Your task to perform on an android device: Is it going to rain today? Image 0: 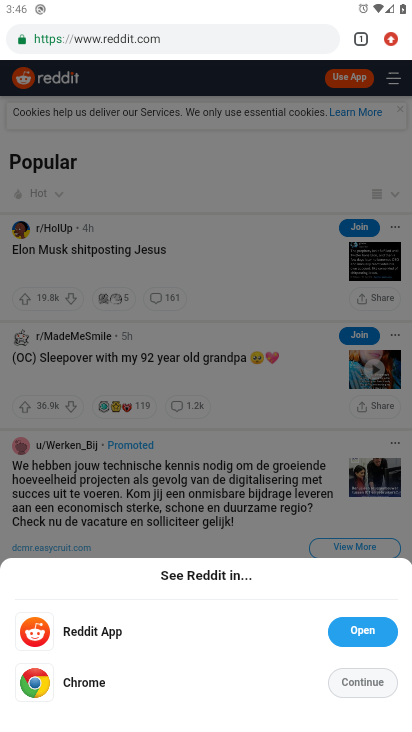
Step 0: press home button
Your task to perform on an android device: Is it going to rain today? Image 1: 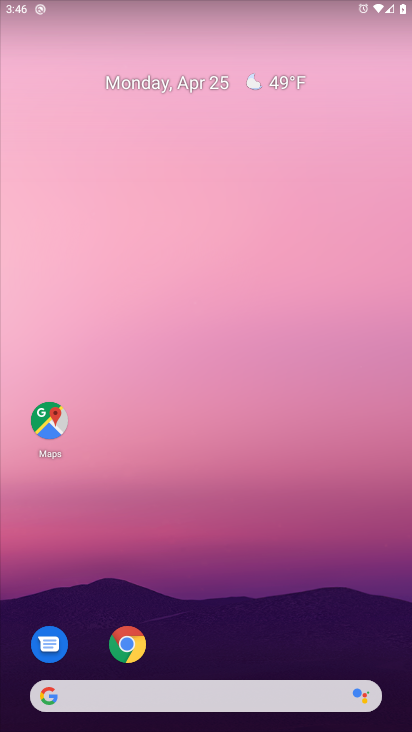
Step 1: click (209, 697)
Your task to perform on an android device: Is it going to rain today? Image 2: 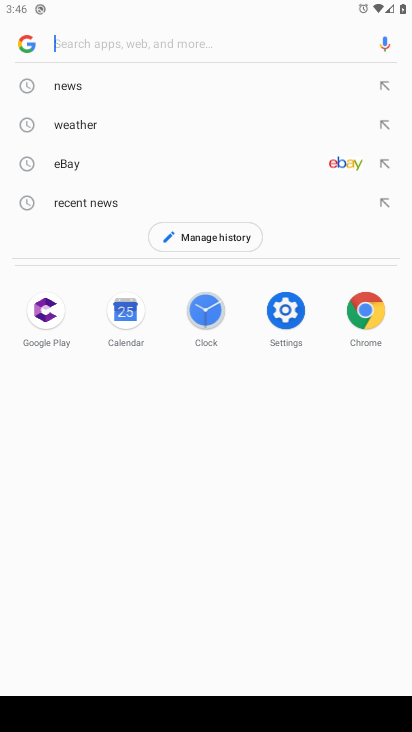
Step 2: click (134, 117)
Your task to perform on an android device: Is it going to rain today? Image 3: 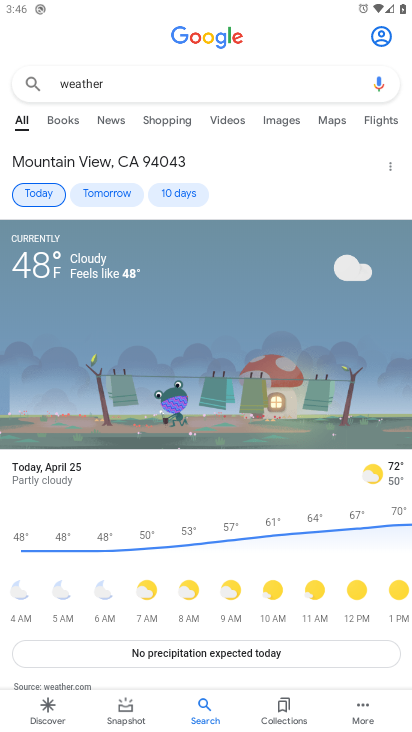
Step 3: task complete